Your task to perform on an android device: move an email to a new category in the gmail app Image 0: 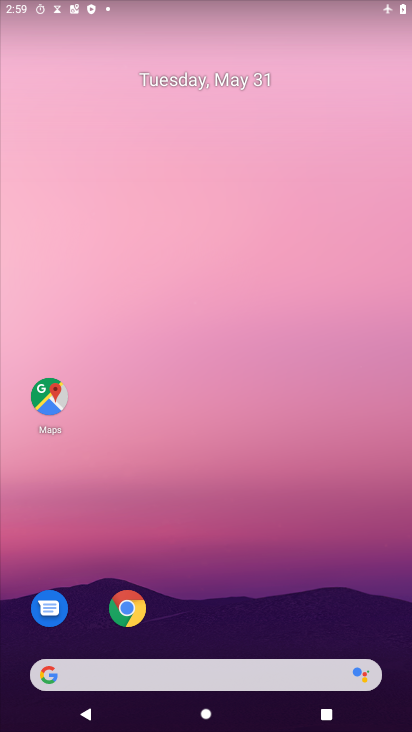
Step 0: drag from (211, 621) to (276, 128)
Your task to perform on an android device: move an email to a new category in the gmail app Image 1: 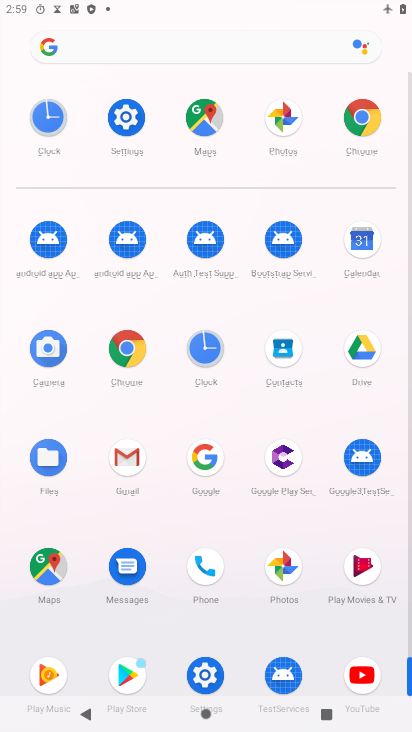
Step 1: click (121, 467)
Your task to perform on an android device: move an email to a new category in the gmail app Image 2: 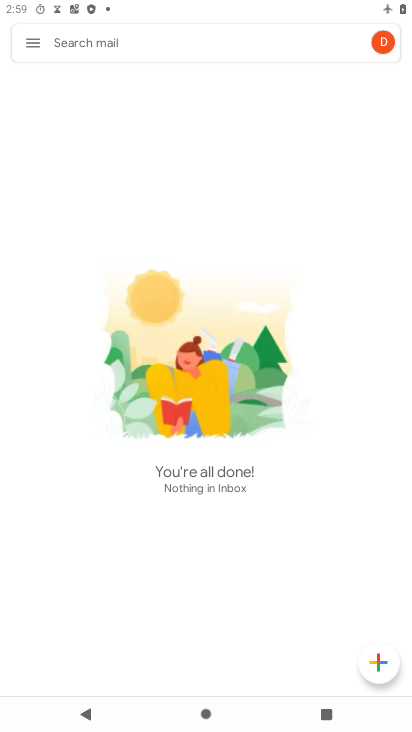
Step 2: click (30, 45)
Your task to perform on an android device: move an email to a new category in the gmail app Image 3: 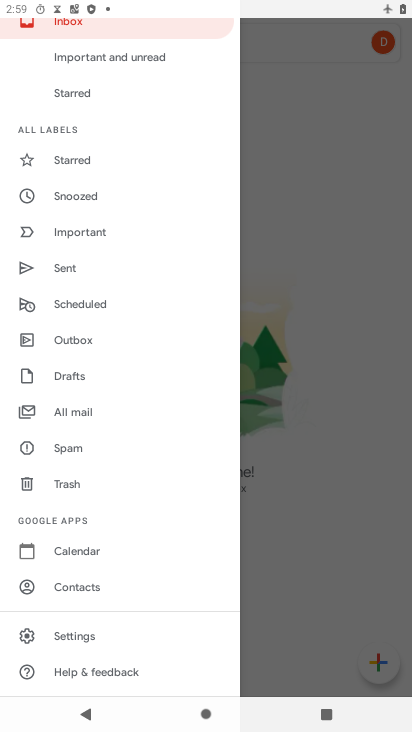
Step 3: drag from (100, 542) to (108, 505)
Your task to perform on an android device: move an email to a new category in the gmail app Image 4: 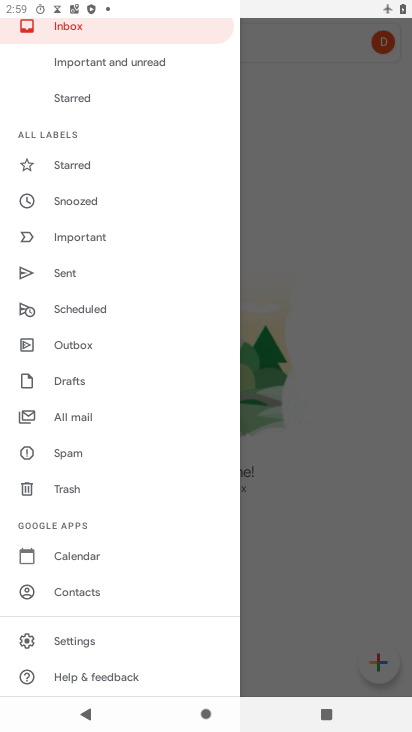
Step 4: click (82, 413)
Your task to perform on an android device: move an email to a new category in the gmail app Image 5: 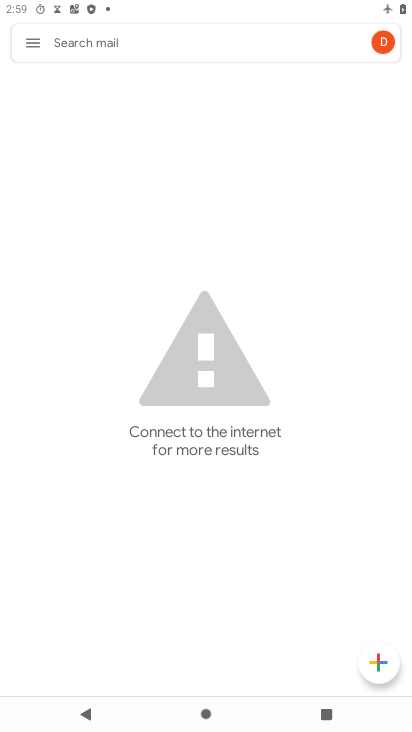
Step 5: task complete